Your task to perform on an android device: View the shopping cart on bestbuy.com. Add "razer blade" to the cart on bestbuy.com Image 0: 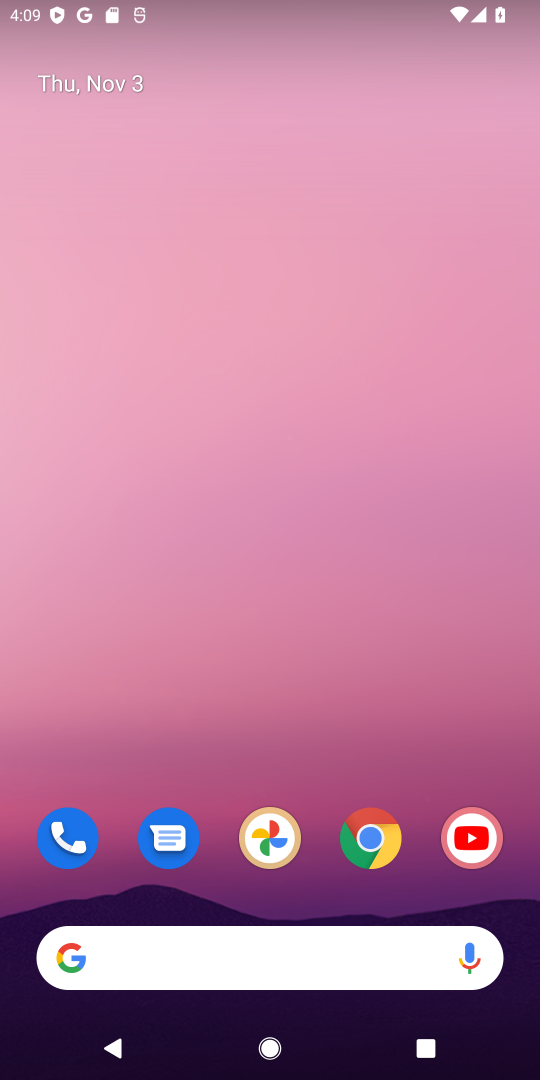
Step 0: click (367, 849)
Your task to perform on an android device: View the shopping cart on bestbuy.com. Add "razer blade" to the cart on bestbuy.com Image 1: 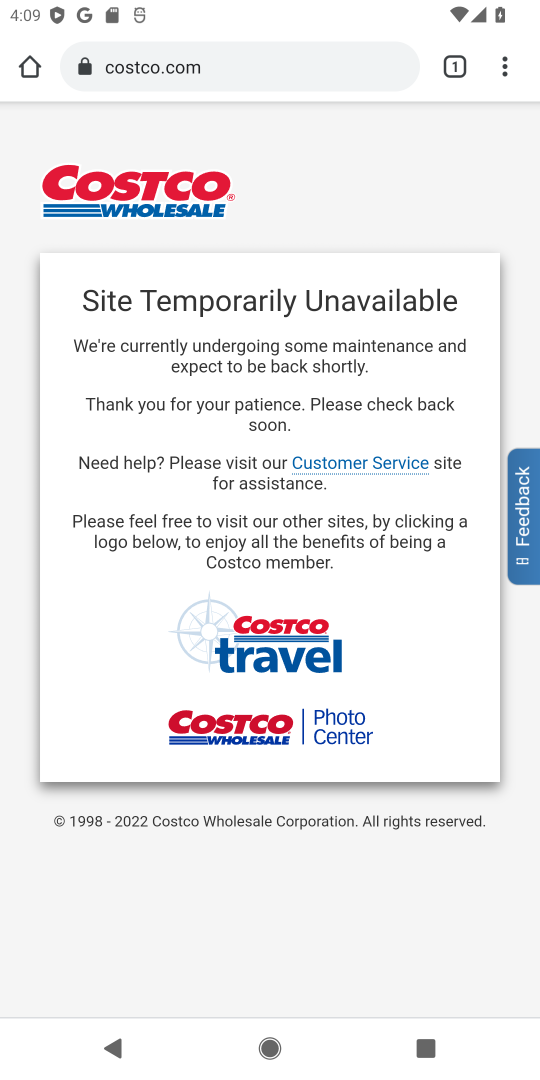
Step 1: click (262, 65)
Your task to perform on an android device: View the shopping cart on bestbuy.com. Add "razer blade" to the cart on bestbuy.com Image 2: 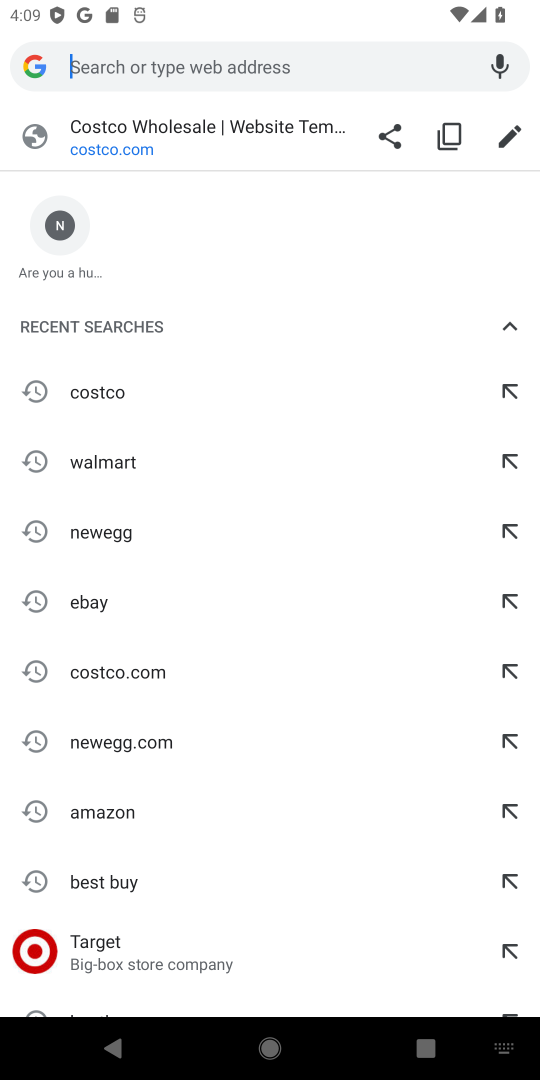
Step 2: click (108, 888)
Your task to perform on an android device: View the shopping cart on bestbuy.com. Add "razer blade" to the cart on bestbuy.com Image 3: 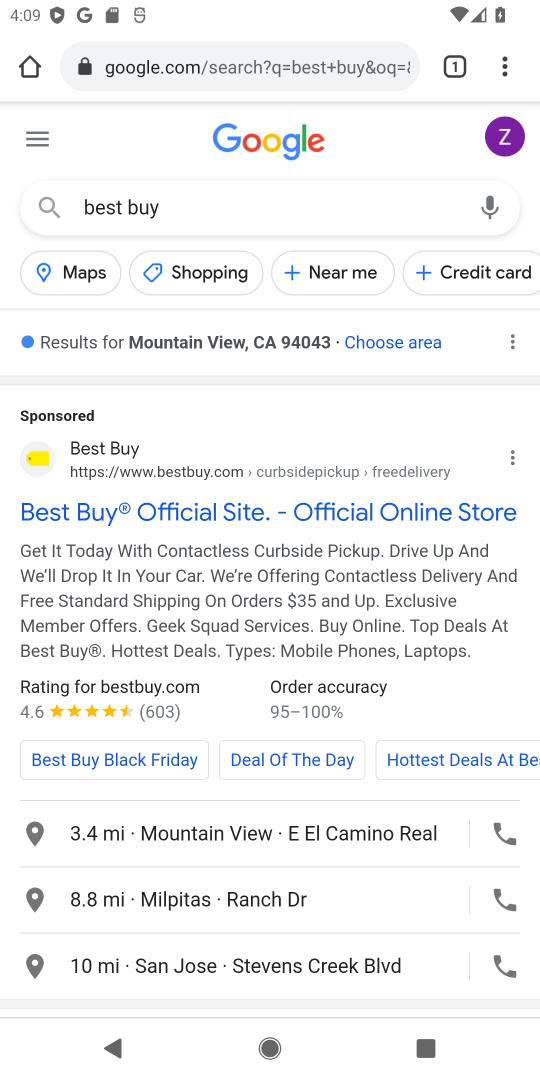
Step 3: click (204, 523)
Your task to perform on an android device: View the shopping cart on bestbuy.com. Add "razer blade" to the cart on bestbuy.com Image 4: 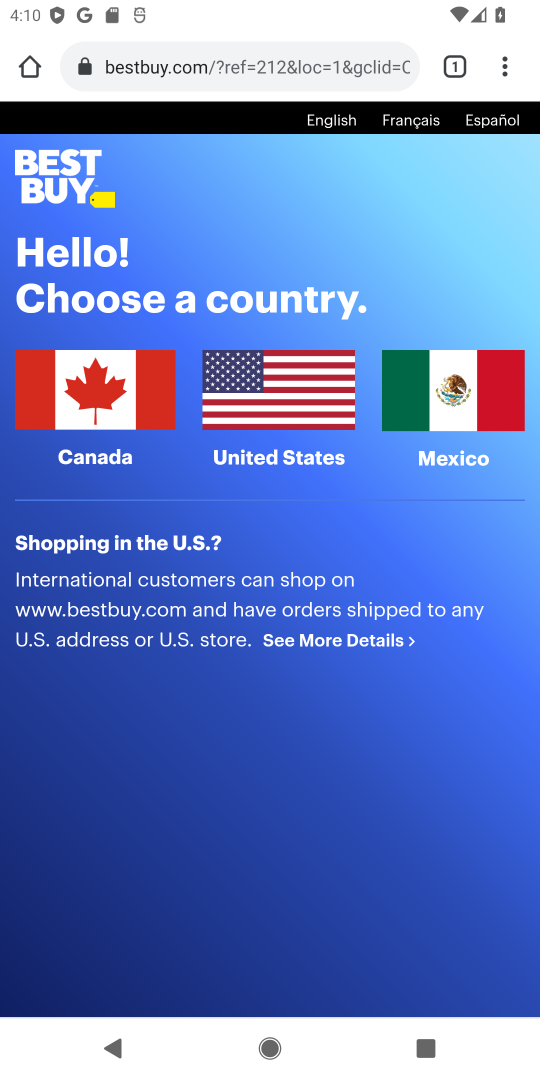
Step 4: click (257, 395)
Your task to perform on an android device: View the shopping cart on bestbuy.com. Add "razer blade" to the cart on bestbuy.com Image 5: 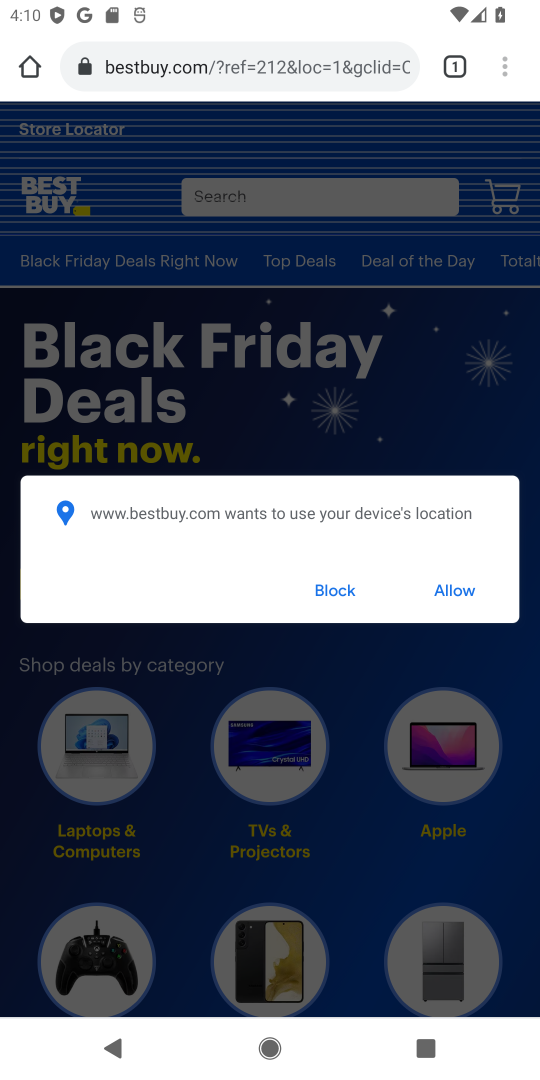
Step 5: click (378, 193)
Your task to perform on an android device: View the shopping cart on bestbuy.com. Add "razer blade" to the cart on bestbuy.com Image 6: 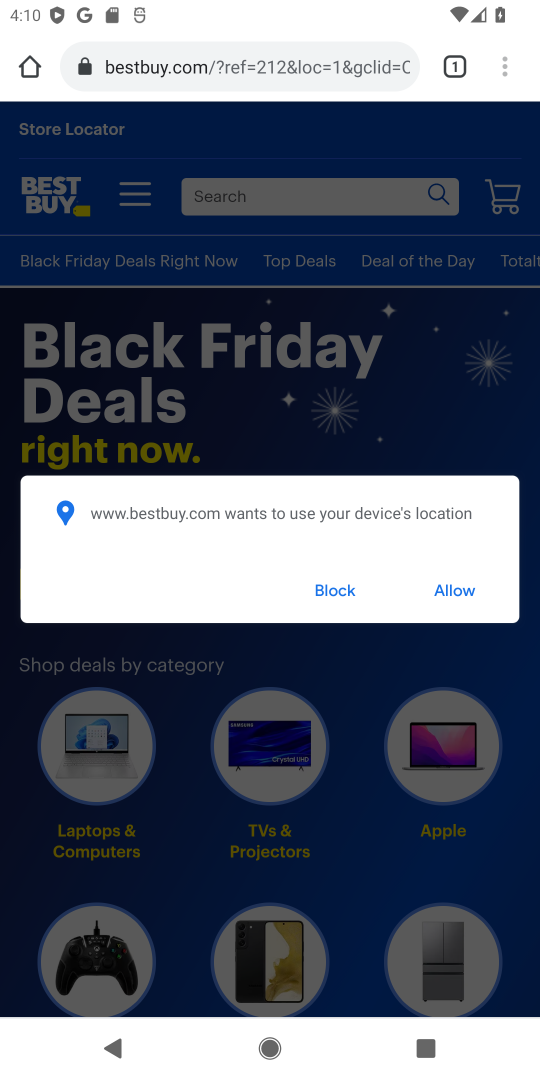
Step 6: click (447, 594)
Your task to perform on an android device: View the shopping cart on bestbuy.com. Add "razer blade" to the cart on bestbuy.com Image 7: 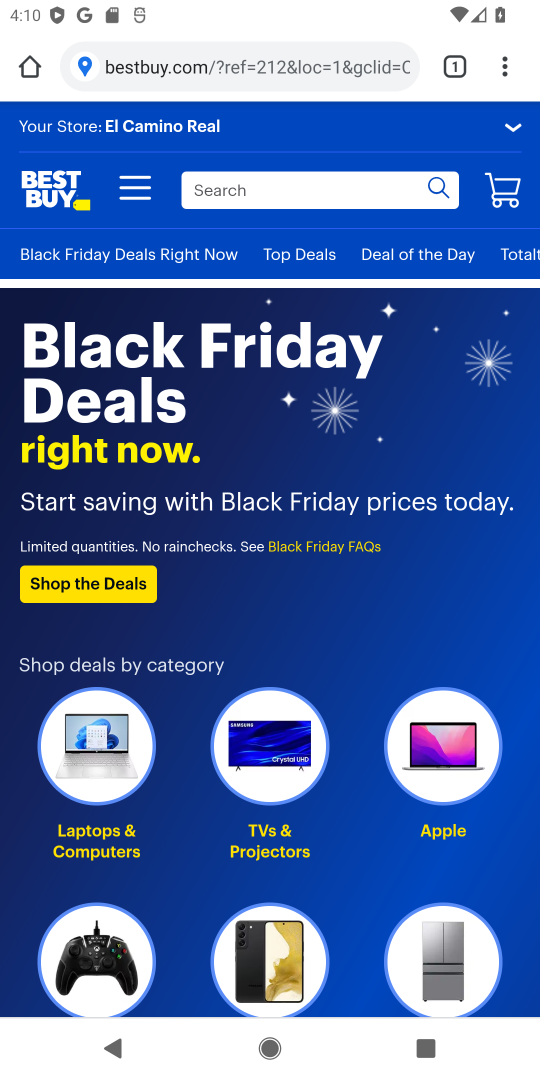
Step 7: click (302, 191)
Your task to perform on an android device: View the shopping cart on bestbuy.com. Add "razer blade" to the cart on bestbuy.com Image 8: 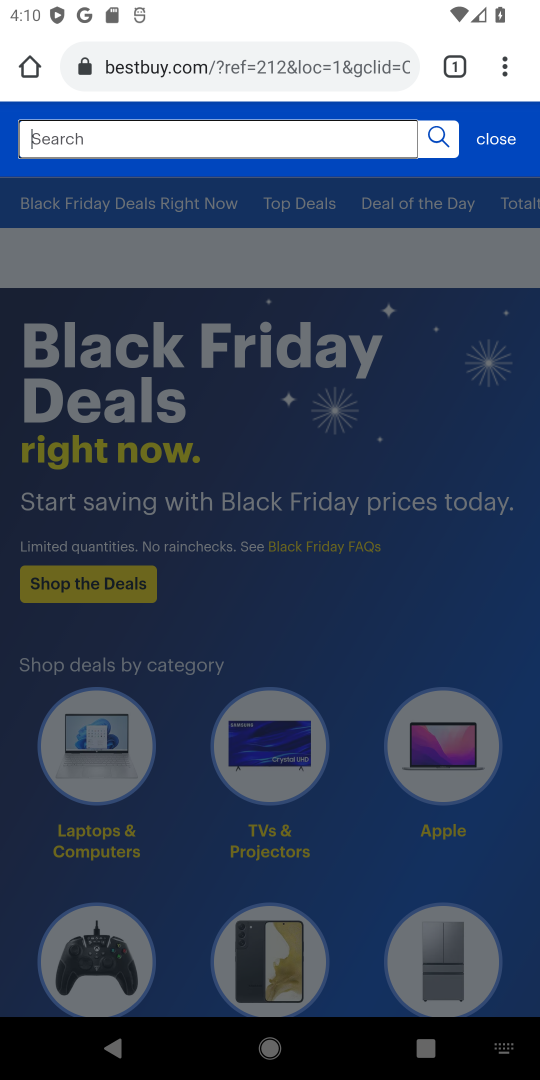
Step 8: type "razer blade"
Your task to perform on an android device: View the shopping cart on bestbuy.com. Add "razer blade" to the cart on bestbuy.com Image 9: 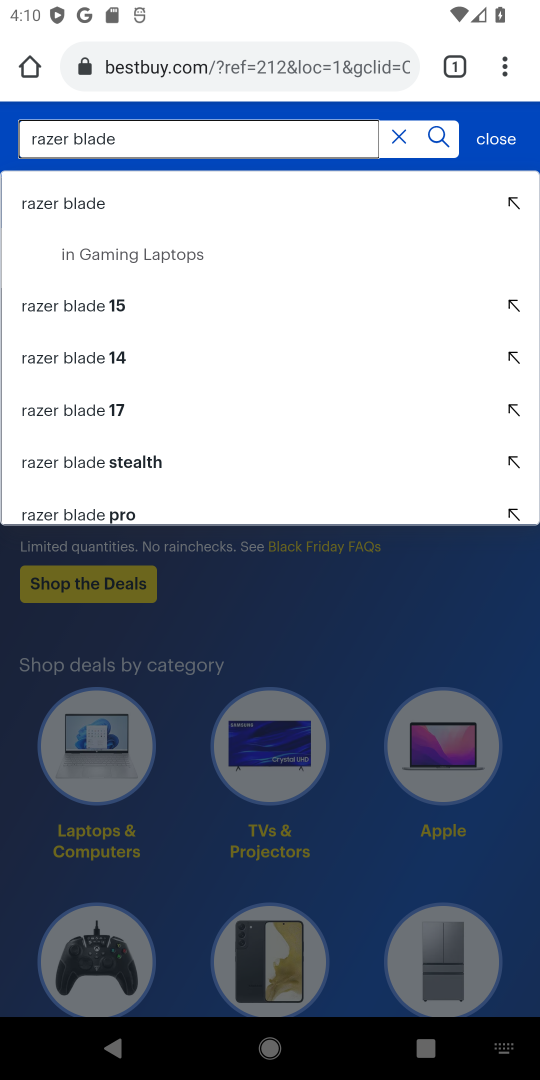
Step 9: click (80, 207)
Your task to perform on an android device: View the shopping cart on bestbuy.com. Add "razer blade" to the cart on bestbuy.com Image 10: 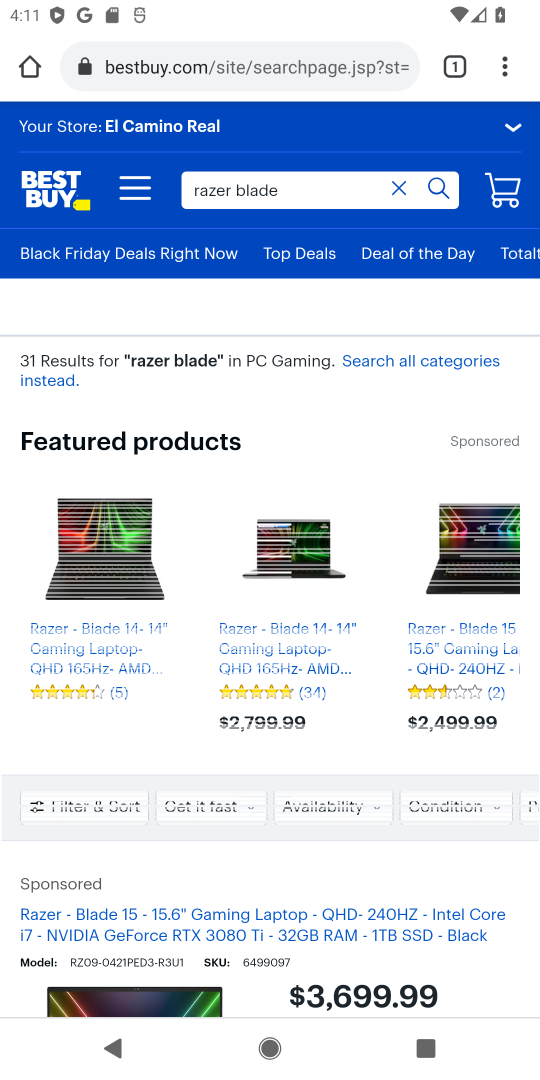
Step 10: drag from (309, 952) to (296, 406)
Your task to perform on an android device: View the shopping cart on bestbuy.com. Add "razer blade" to the cart on bestbuy.com Image 11: 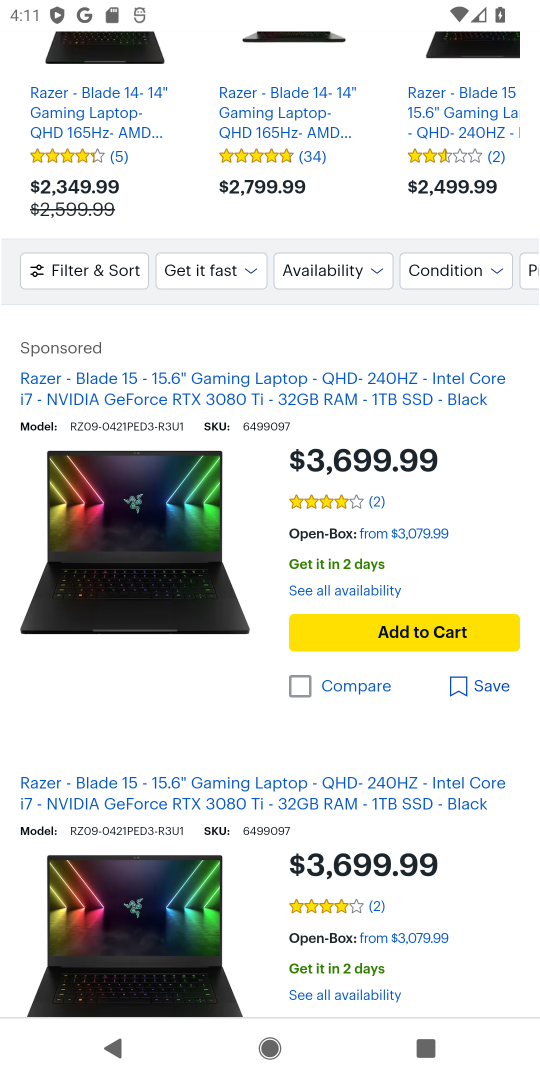
Step 11: click (407, 637)
Your task to perform on an android device: View the shopping cart on bestbuy.com. Add "razer blade" to the cart on bestbuy.com Image 12: 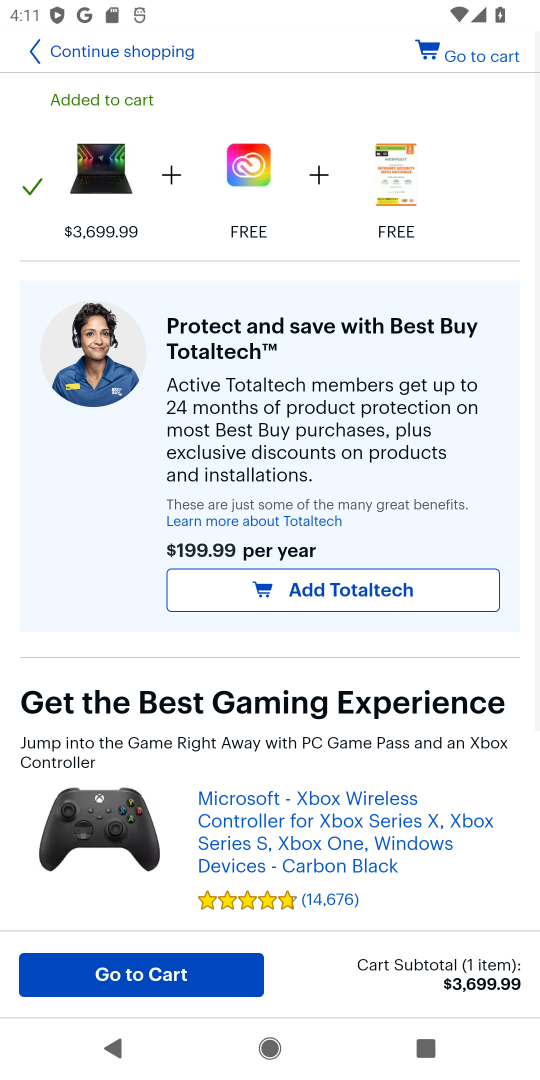
Step 12: click (124, 981)
Your task to perform on an android device: View the shopping cart on bestbuy.com. Add "razer blade" to the cart on bestbuy.com Image 13: 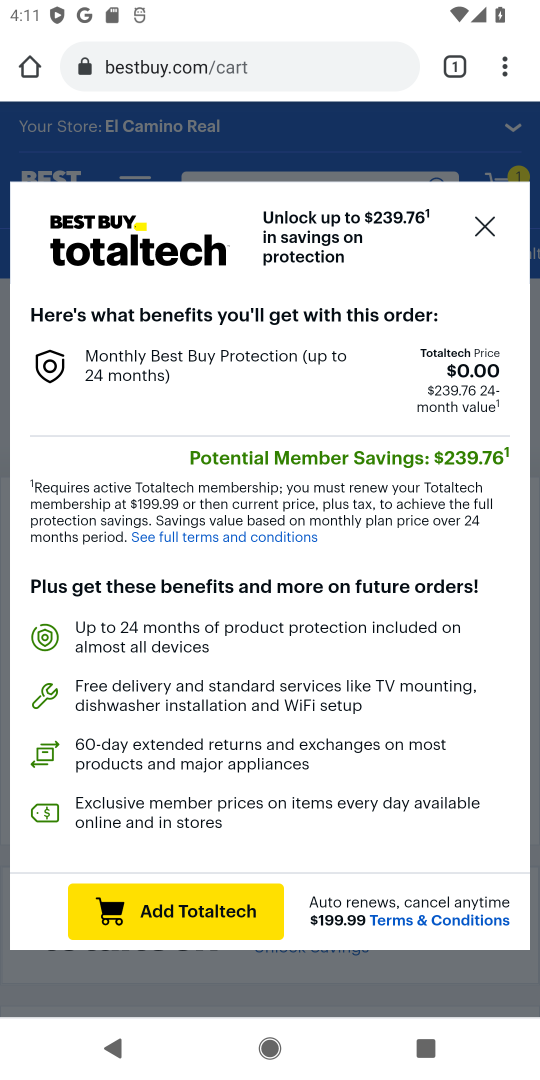
Step 13: task complete